Your task to perform on an android device: turn off notifications in google photos Image 0: 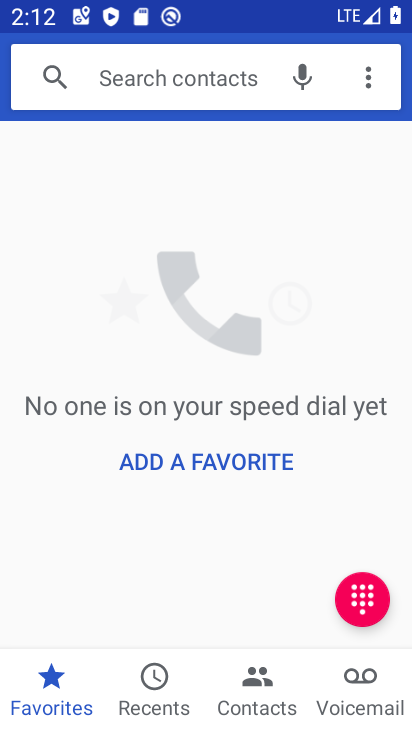
Step 0: press home button
Your task to perform on an android device: turn off notifications in google photos Image 1: 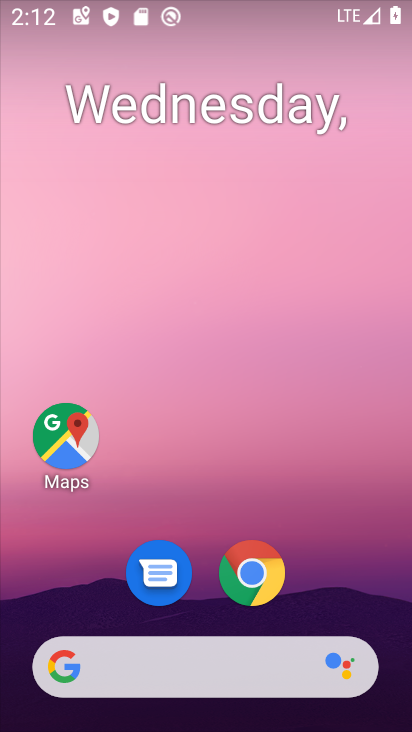
Step 1: drag from (204, 579) to (183, 88)
Your task to perform on an android device: turn off notifications in google photos Image 2: 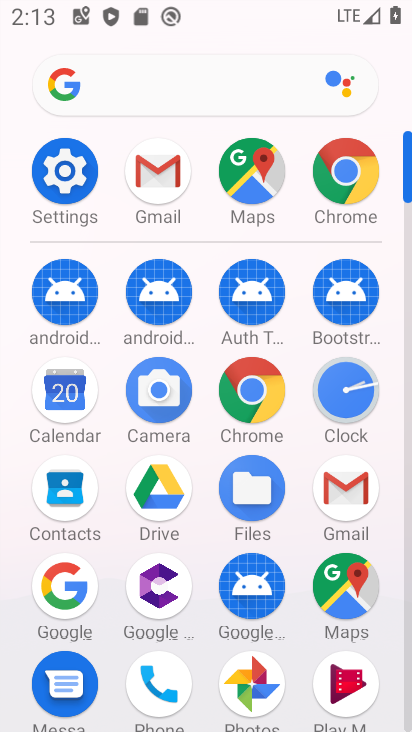
Step 2: click (256, 677)
Your task to perform on an android device: turn off notifications in google photos Image 3: 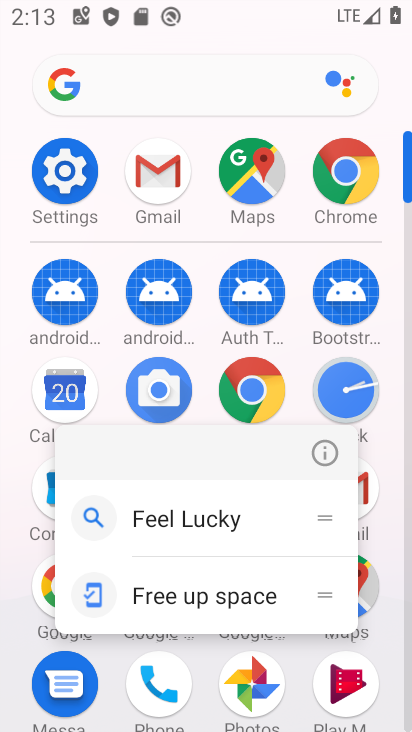
Step 3: click (252, 690)
Your task to perform on an android device: turn off notifications in google photos Image 4: 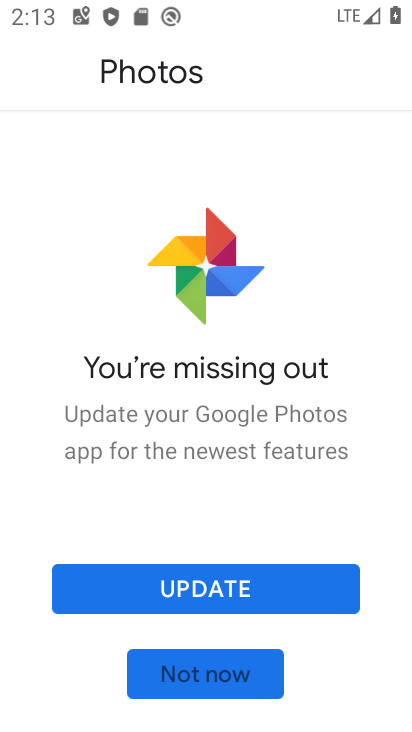
Step 4: click (220, 676)
Your task to perform on an android device: turn off notifications in google photos Image 5: 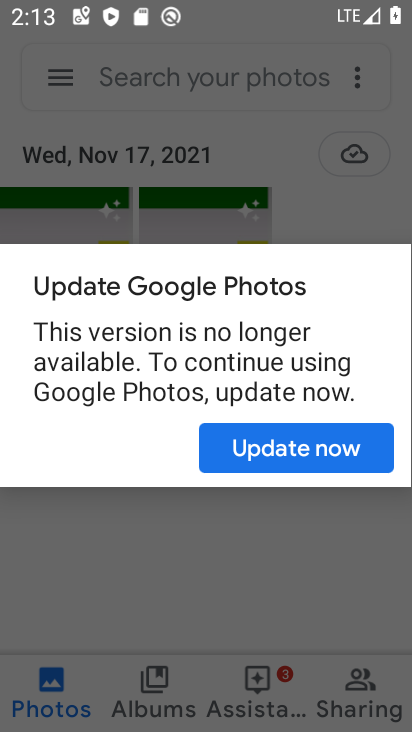
Step 5: click (292, 448)
Your task to perform on an android device: turn off notifications in google photos Image 6: 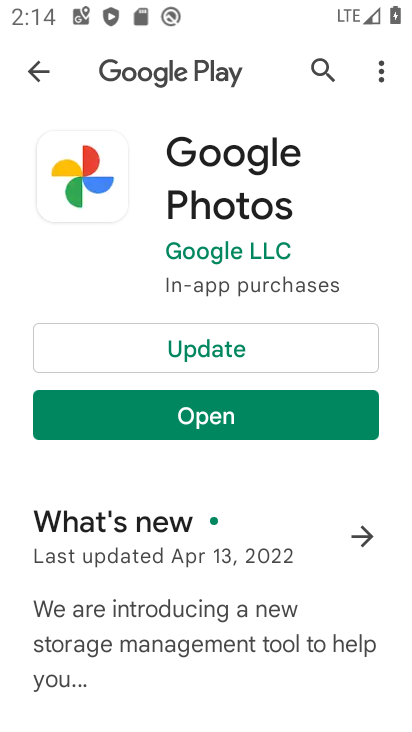
Step 6: click (212, 414)
Your task to perform on an android device: turn off notifications in google photos Image 7: 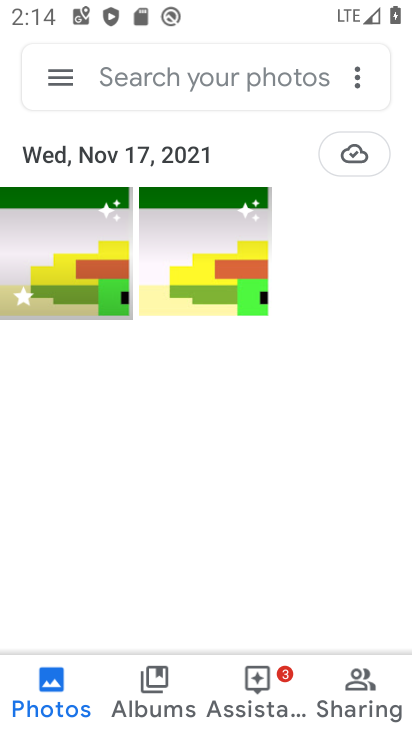
Step 7: click (55, 72)
Your task to perform on an android device: turn off notifications in google photos Image 8: 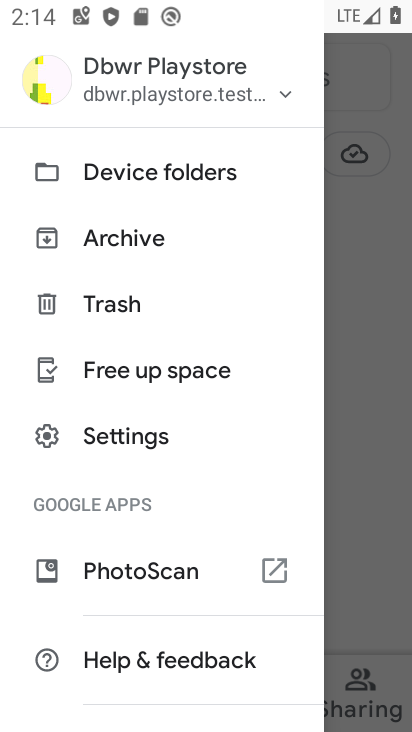
Step 8: click (128, 439)
Your task to perform on an android device: turn off notifications in google photos Image 9: 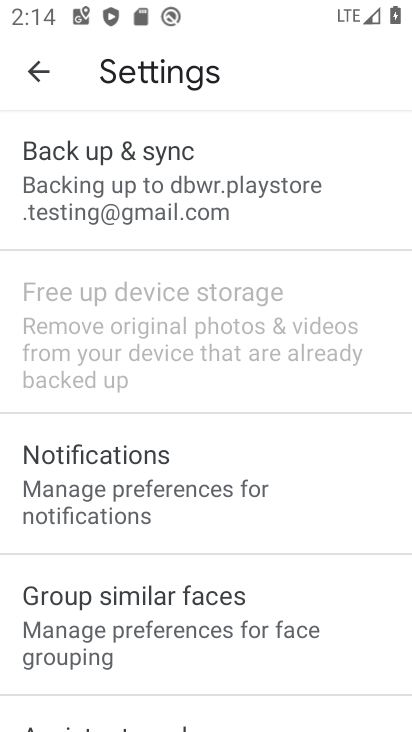
Step 9: click (185, 484)
Your task to perform on an android device: turn off notifications in google photos Image 10: 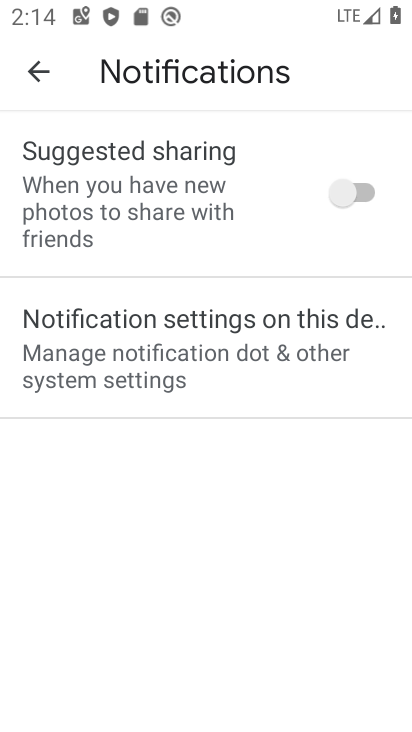
Step 10: click (152, 343)
Your task to perform on an android device: turn off notifications in google photos Image 11: 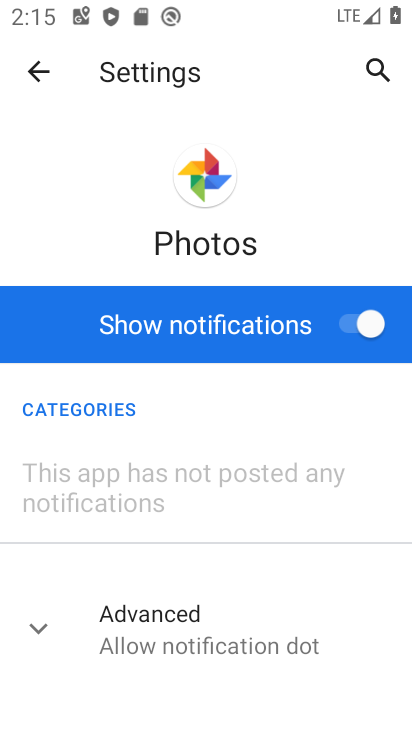
Step 11: click (359, 330)
Your task to perform on an android device: turn off notifications in google photos Image 12: 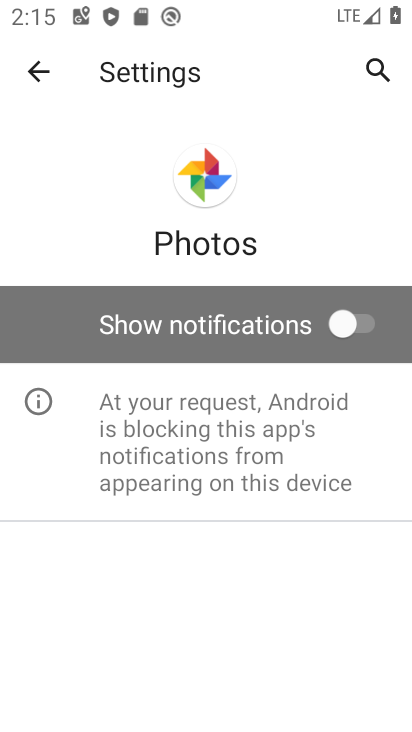
Step 12: task complete